Your task to perform on an android device: turn notification dots on Image 0: 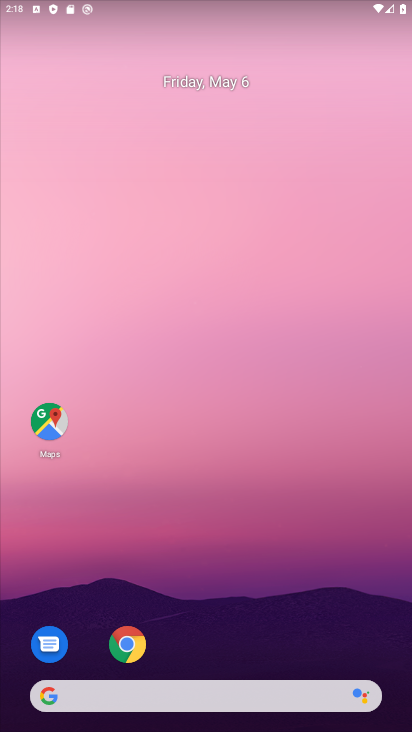
Step 0: drag from (216, 681) to (266, 225)
Your task to perform on an android device: turn notification dots on Image 1: 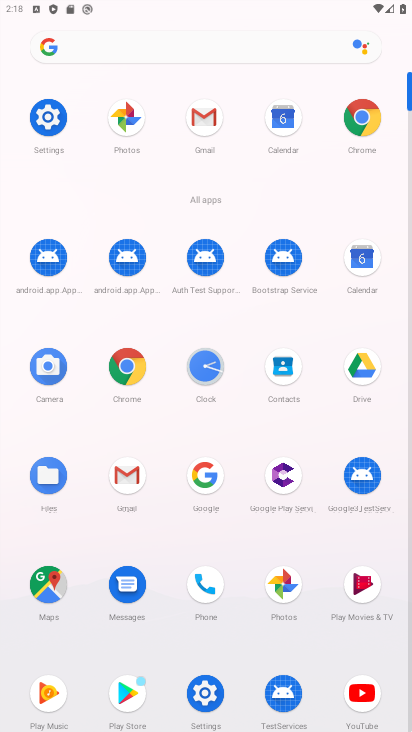
Step 1: click (57, 136)
Your task to perform on an android device: turn notification dots on Image 2: 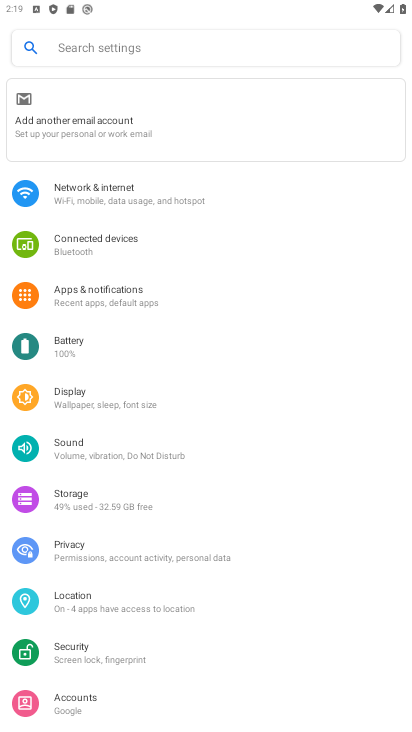
Step 2: click (187, 287)
Your task to perform on an android device: turn notification dots on Image 3: 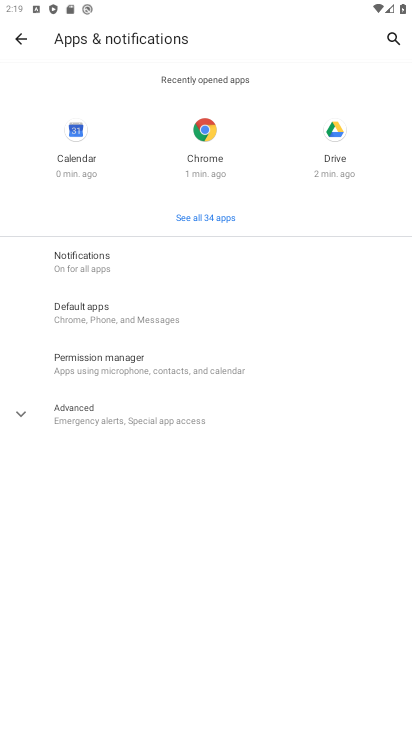
Step 3: click (183, 266)
Your task to perform on an android device: turn notification dots on Image 4: 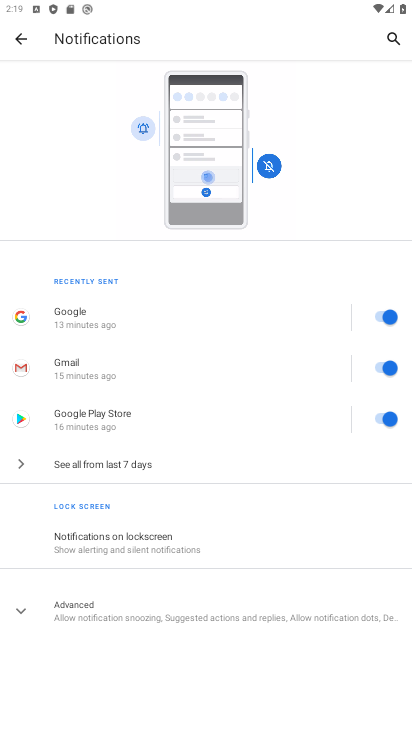
Step 4: click (201, 613)
Your task to perform on an android device: turn notification dots on Image 5: 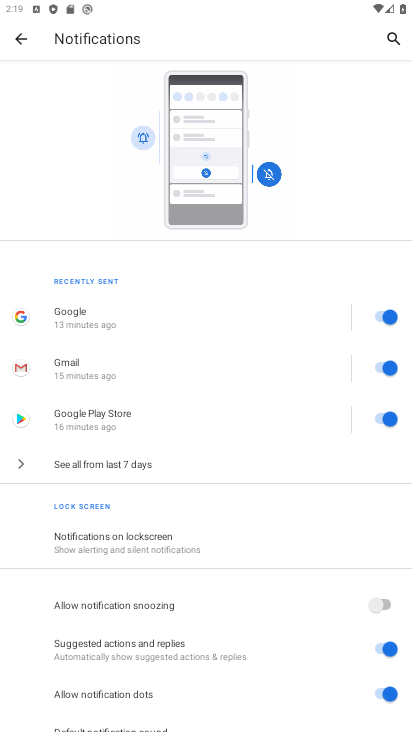
Step 5: task complete